Your task to perform on an android device: check battery use Image 0: 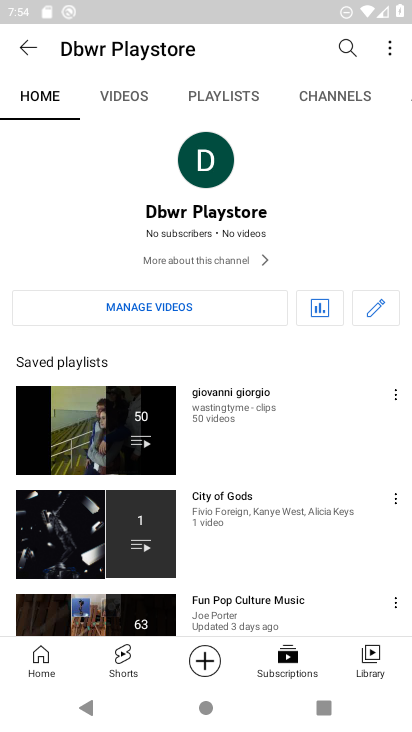
Step 0: press back button
Your task to perform on an android device: check battery use Image 1: 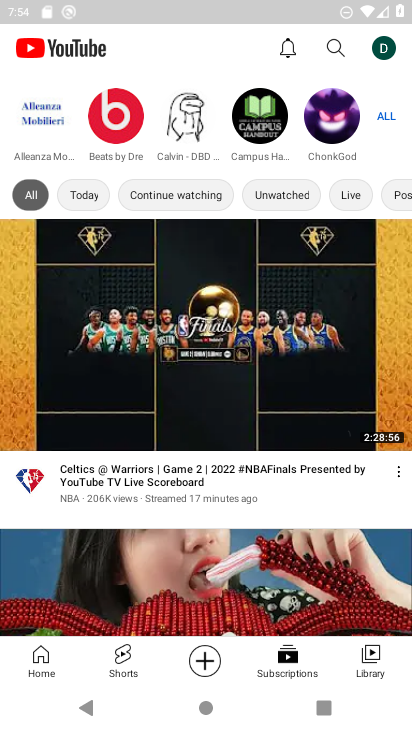
Step 1: press home button
Your task to perform on an android device: check battery use Image 2: 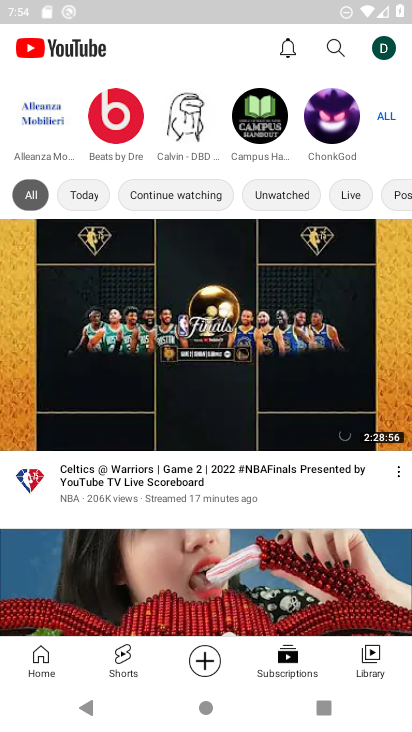
Step 2: click (389, 647)
Your task to perform on an android device: check battery use Image 3: 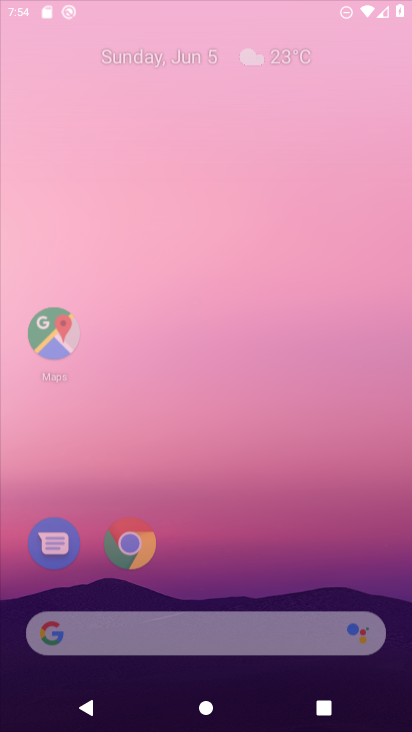
Step 3: click (389, 398)
Your task to perform on an android device: check battery use Image 4: 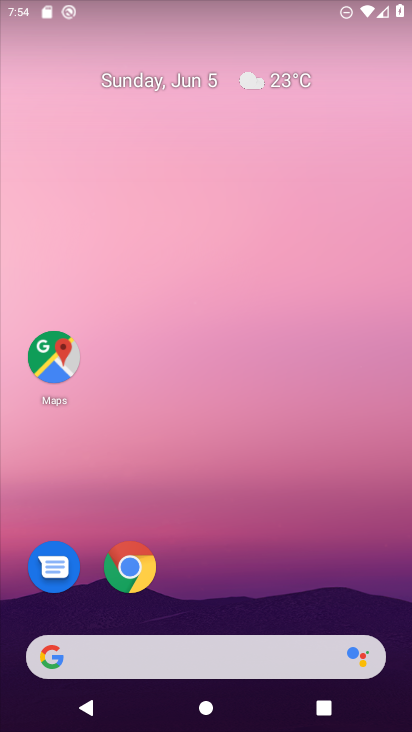
Step 4: drag from (389, 428) to (283, 41)
Your task to perform on an android device: check battery use Image 5: 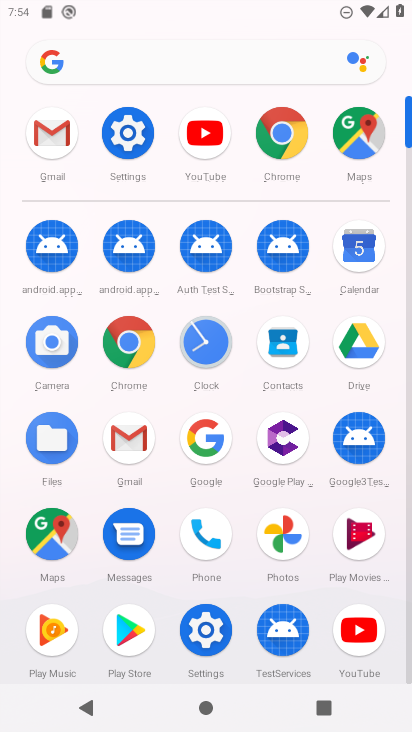
Step 5: click (130, 151)
Your task to perform on an android device: check battery use Image 6: 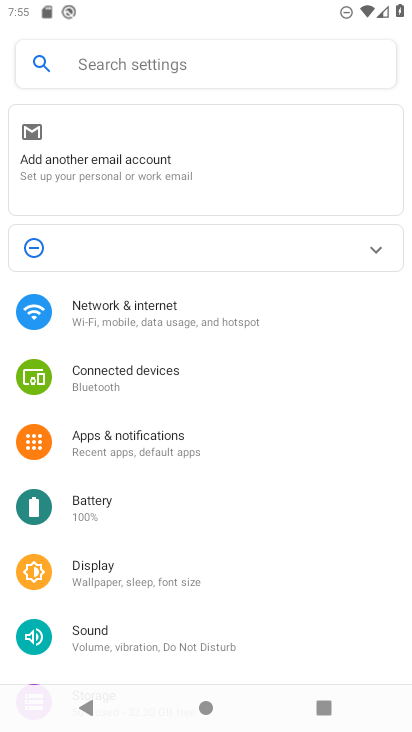
Step 6: click (122, 502)
Your task to perform on an android device: check battery use Image 7: 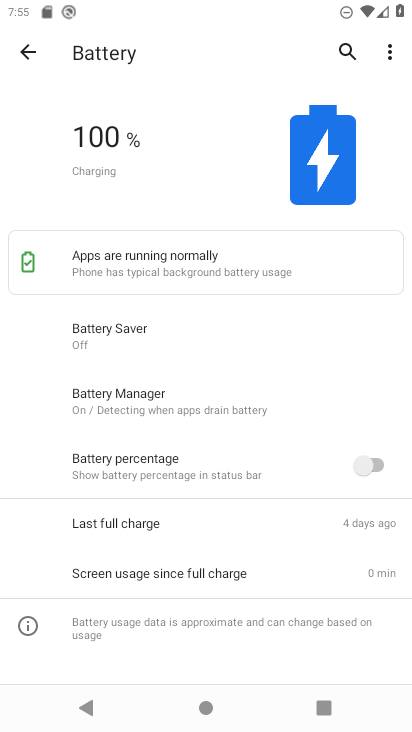
Step 7: click (393, 49)
Your task to perform on an android device: check battery use Image 8: 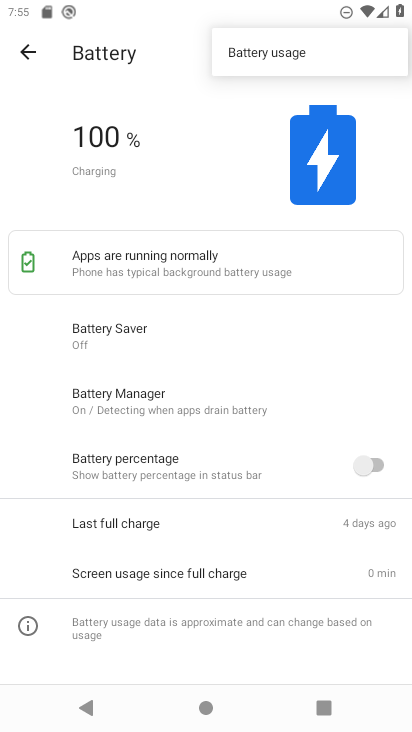
Step 8: click (331, 48)
Your task to perform on an android device: check battery use Image 9: 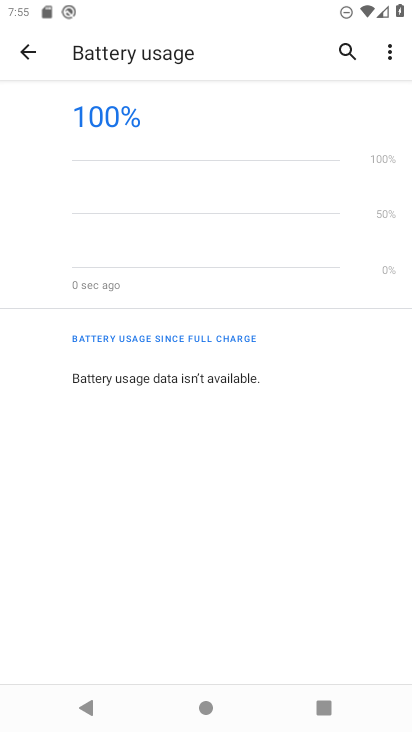
Step 9: task complete